Your task to perform on an android device: add a contact Image 0: 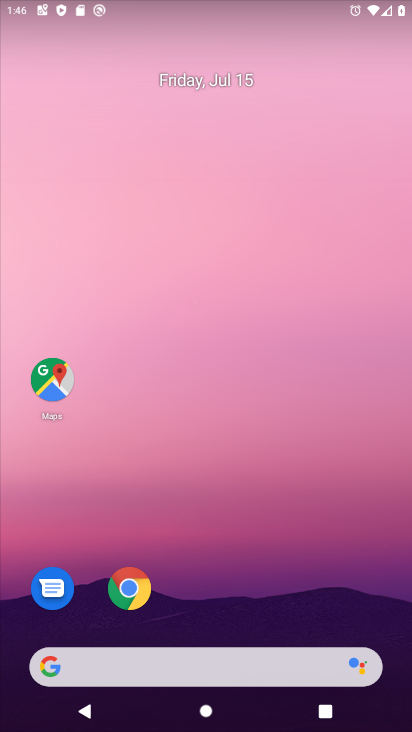
Step 0: drag from (218, 682) to (221, 186)
Your task to perform on an android device: add a contact Image 1: 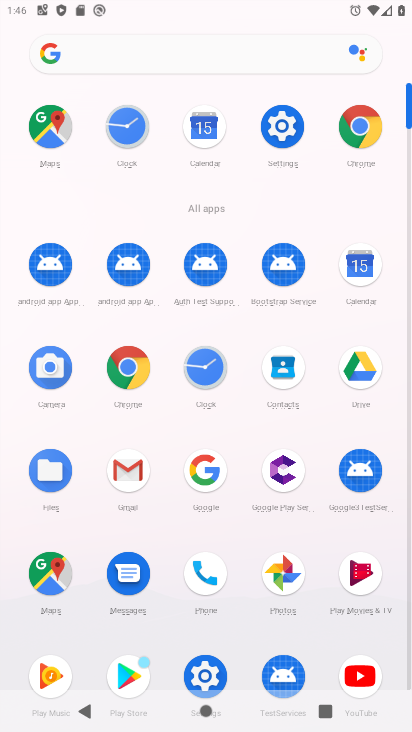
Step 1: click (282, 367)
Your task to perform on an android device: add a contact Image 2: 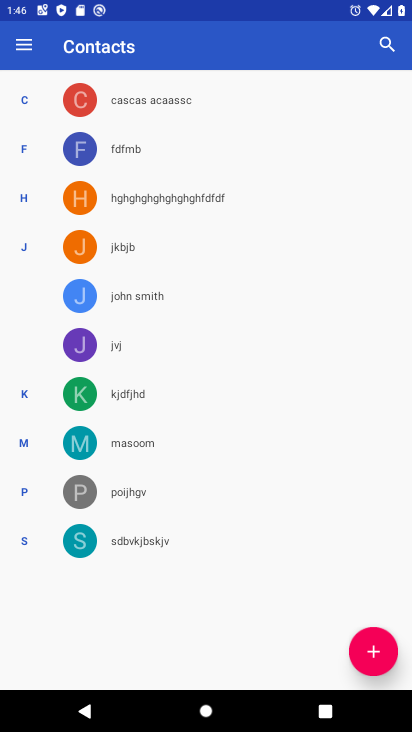
Step 2: click (373, 652)
Your task to perform on an android device: add a contact Image 3: 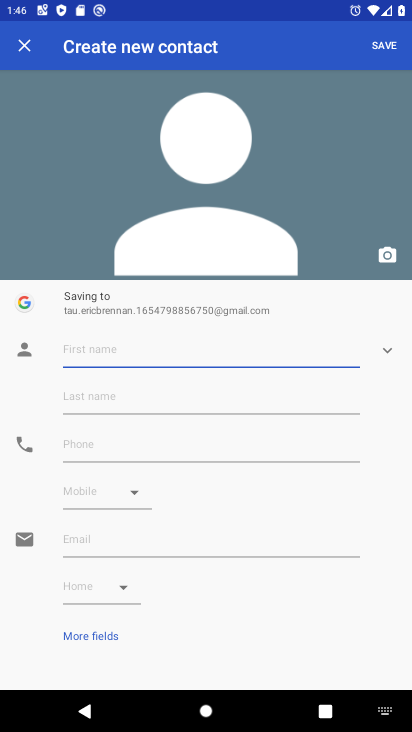
Step 3: type "venkatesh"
Your task to perform on an android device: add a contact Image 4: 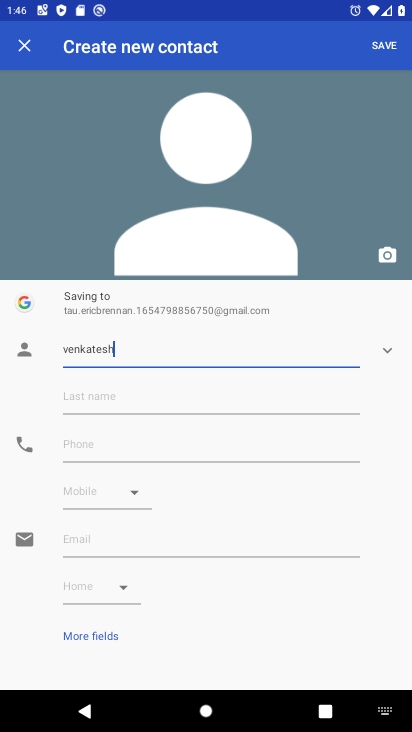
Step 4: click (307, 389)
Your task to perform on an android device: add a contact Image 5: 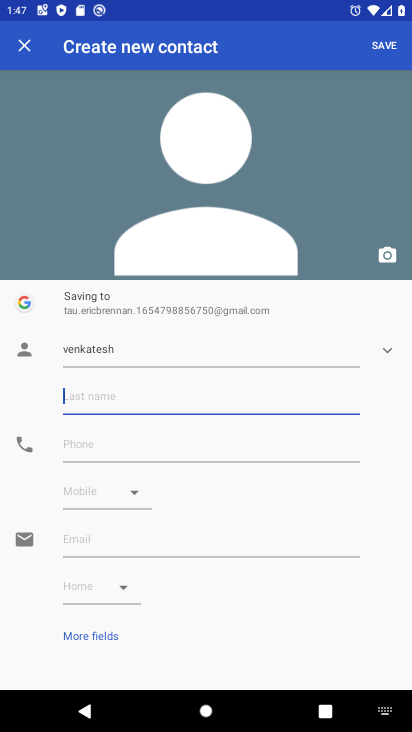
Step 5: type "Prasad"
Your task to perform on an android device: add a contact Image 6: 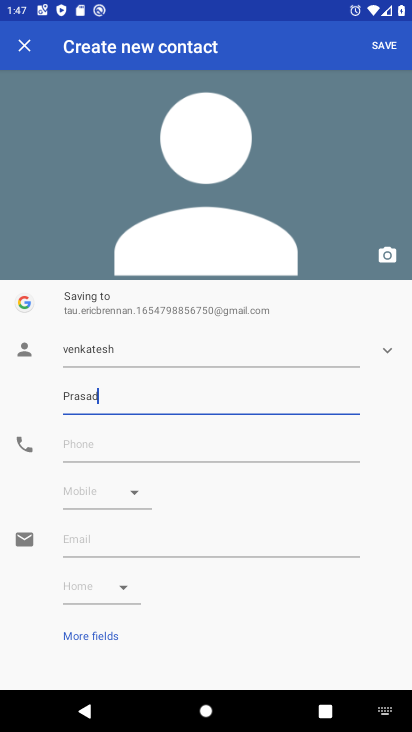
Step 6: click (114, 443)
Your task to perform on an android device: add a contact Image 7: 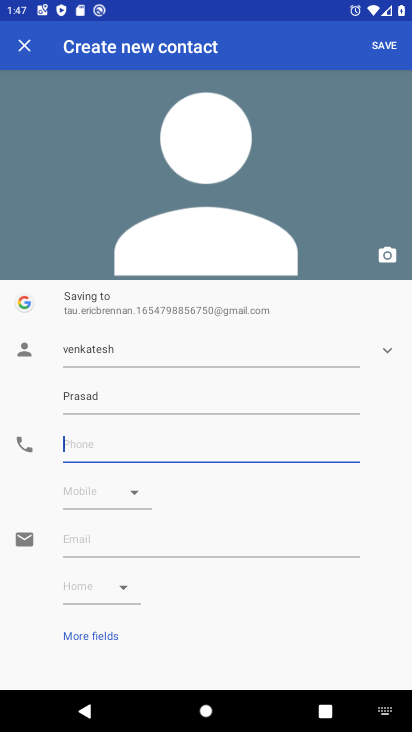
Step 7: type "0987654321"
Your task to perform on an android device: add a contact Image 8: 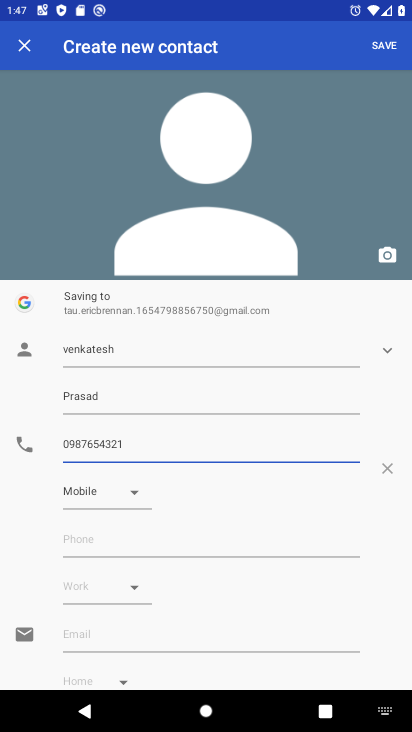
Step 8: click (385, 42)
Your task to perform on an android device: add a contact Image 9: 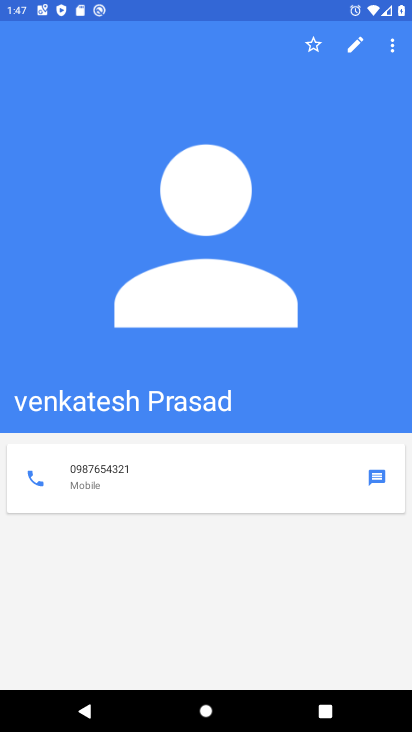
Step 9: task complete